Your task to perform on an android device: find photos in the google photos app Image 0: 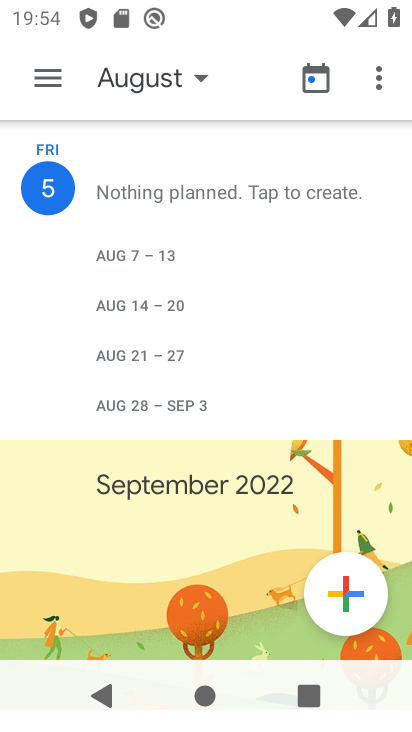
Step 0: press home button
Your task to perform on an android device: find photos in the google photos app Image 1: 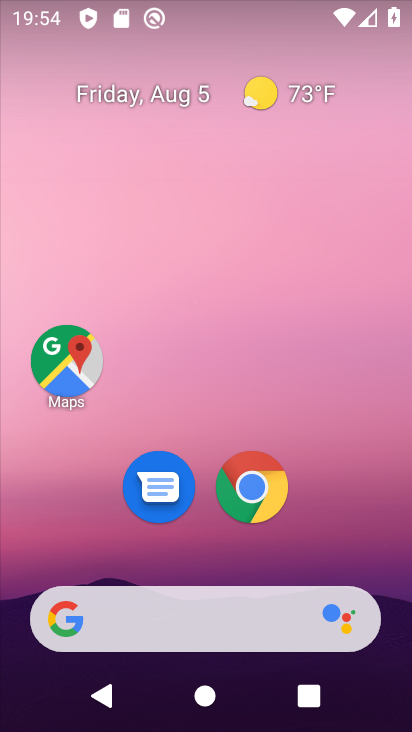
Step 1: drag from (208, 616) to (296, 119)
Your task to perform on an android device: find photos in the google photos app Image 2: 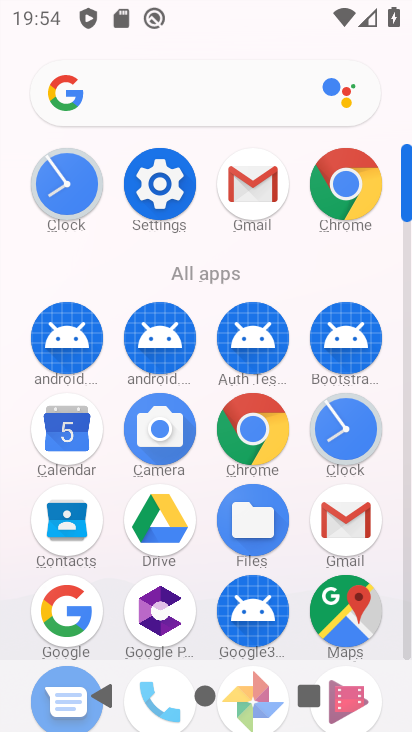
Step 2: drag from (207, 634) to (318, 163)
Your task to perform on an android device: find photos in the google photos app Image 3: 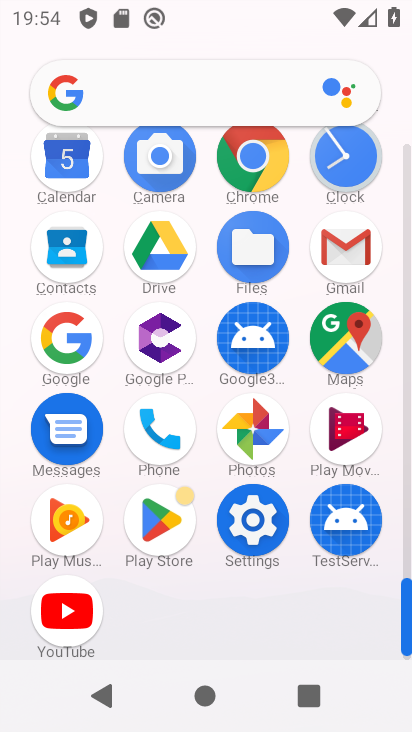
Step 3: click (252, 439)
Your task to perform on an android device: find photos in the google photos app Image 4: 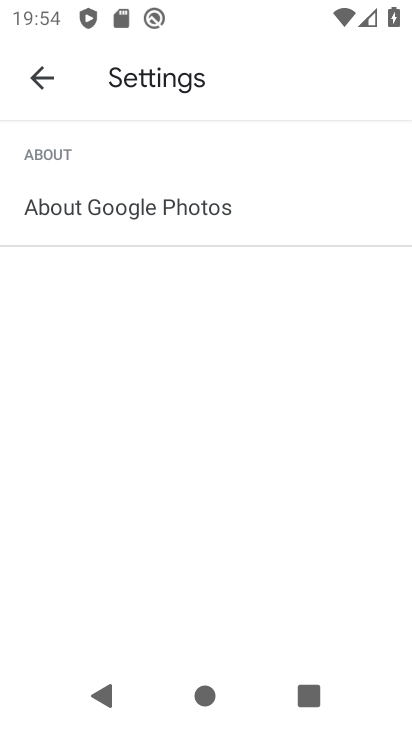
Step 4: click (45, 76)
Your task to perform on an android device: find photos in the google photos app Image 5: 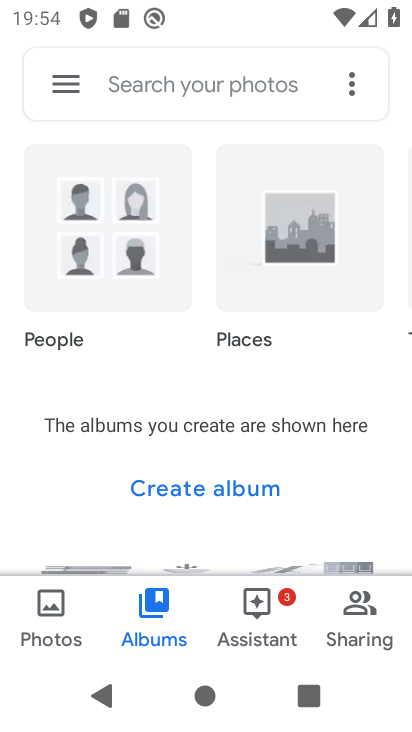
Step 5: click (49, 637)
Your task to perform on an android device: find photos in the google photos app Image 6: 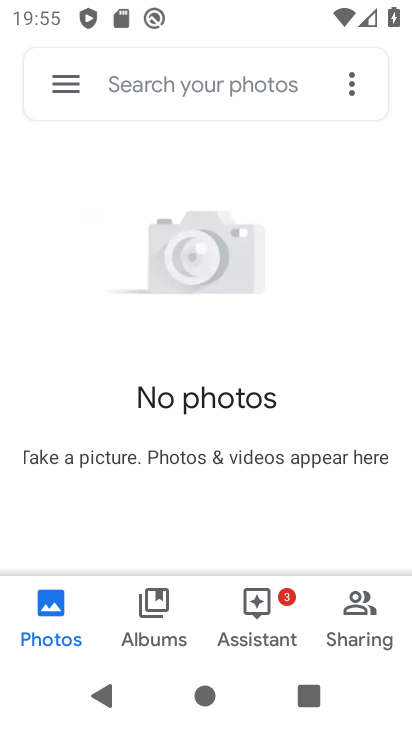
Step 6: task complete